Your task to perform on an android device: visit the assistant section in the google photos Image 0: 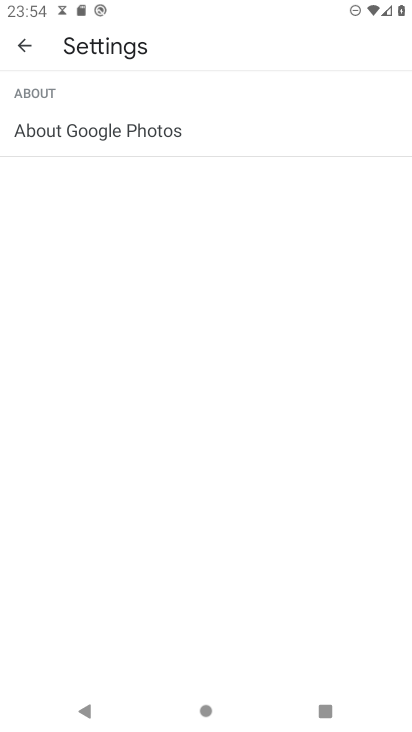
Step 0: press home button
Your task to perform on an android device: visit the assistant section in the google photos Image 1: 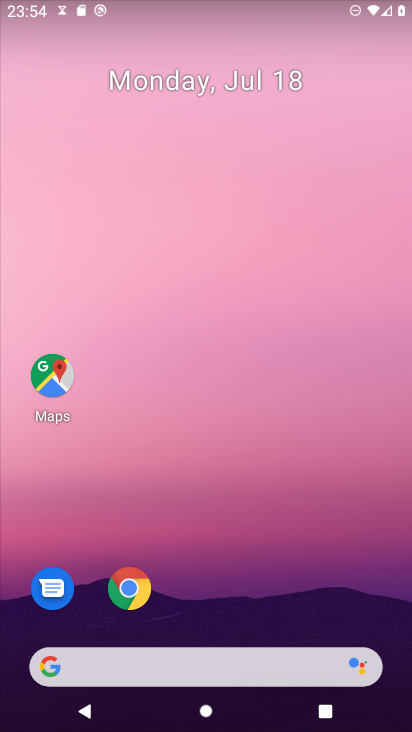
Step 1: drag from (273, 612) to (281, 83)
Your task to perform on an android device: visit the assistant section in the google photos Image 2: 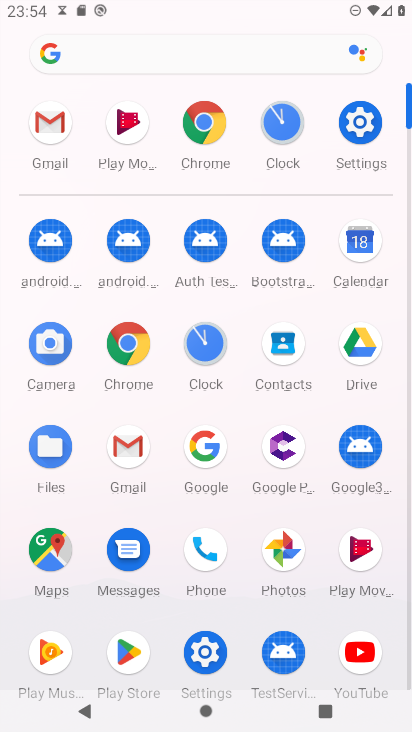
Step 2: click (279, 548)
Your task to perform on an android device: visit the assistant section in the google photos Image 3: 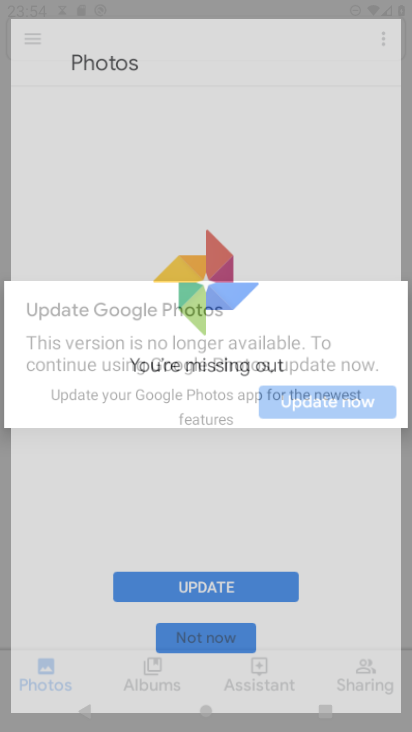
Step 3: click (325, 407)
Your task to perform on an android device: visit the assistant section in the google photos Image 4: 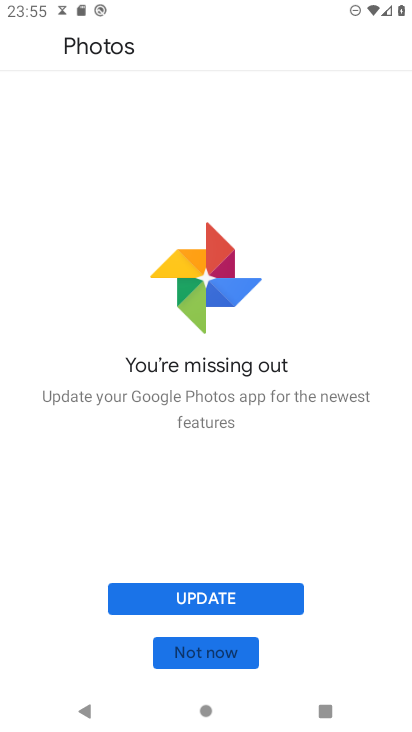
Step 4: click (247, 598)
Your task to perform on an android device: visit the assistant section in the google photos Image 5: 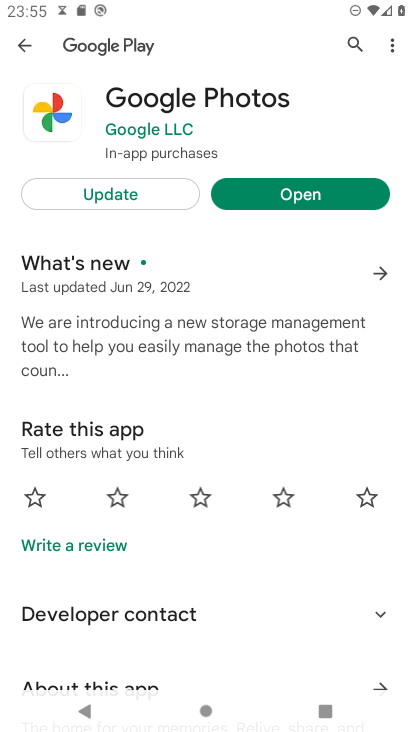
Step 5: click (138, 194)
Your task to perform on an android device: visit the assistant section in the google photos Image 6: 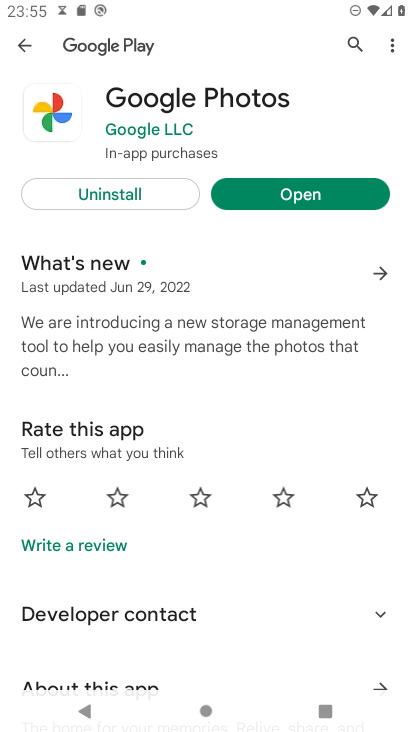
Step 6: click (311, 192)
Your task to perform on an android device: visit the assistant section in the google photos Image 7: 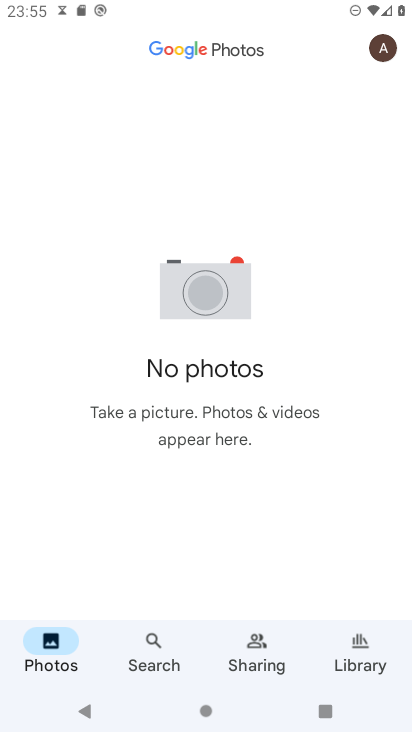
Step 7: task complete